Your task to perform on an android device: open a new tab in the chrome app Image 0: 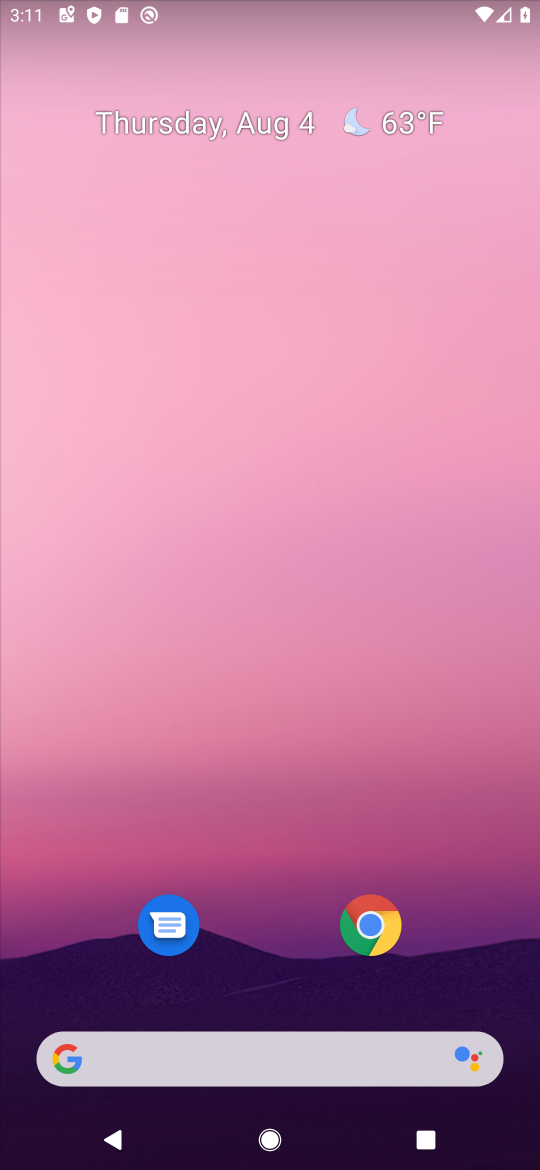
Step 0: click (370, 925)
Your task to perform on an android device: open a new tab in the chrome app Image 1: 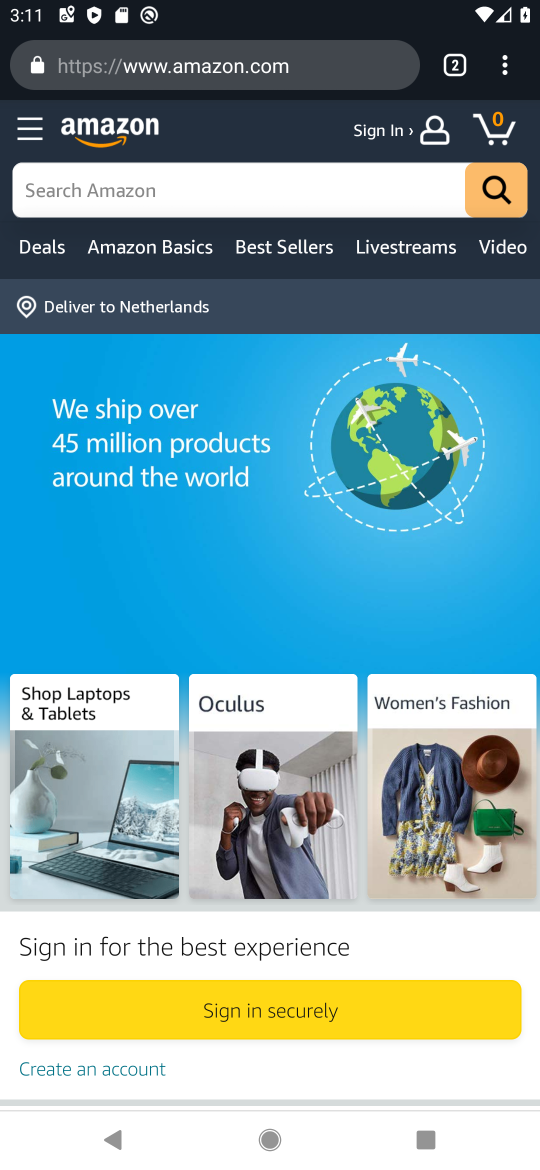
Step 1: click (448, 70)
Your task to perform on an android device: open a new tab in the chrome app Image 2: 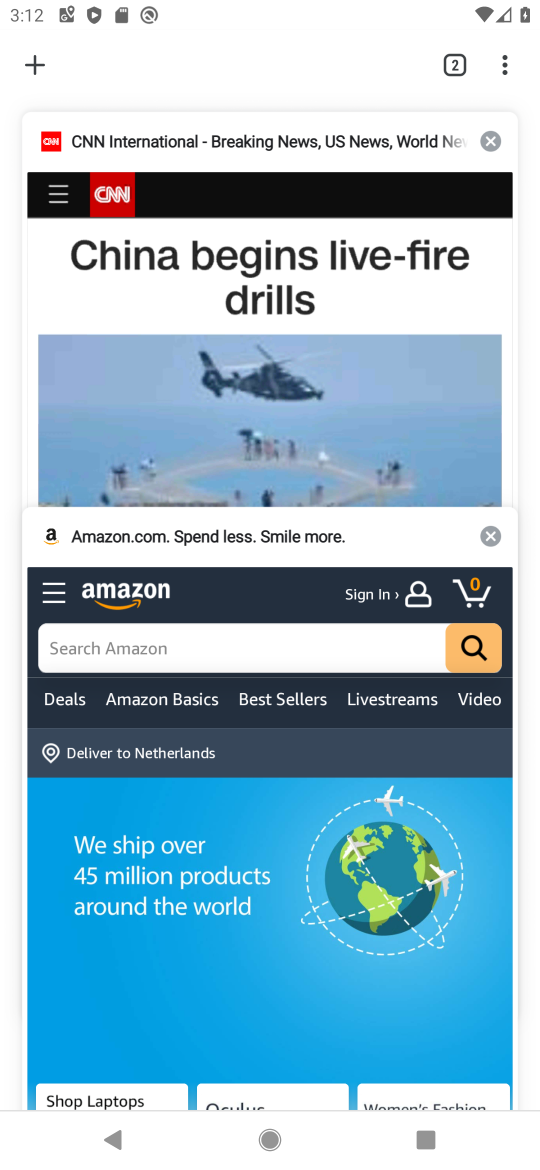
Step 2: click (38, 73)
Your task to perform on an android device: open a new tab in the chrome app Image 3: 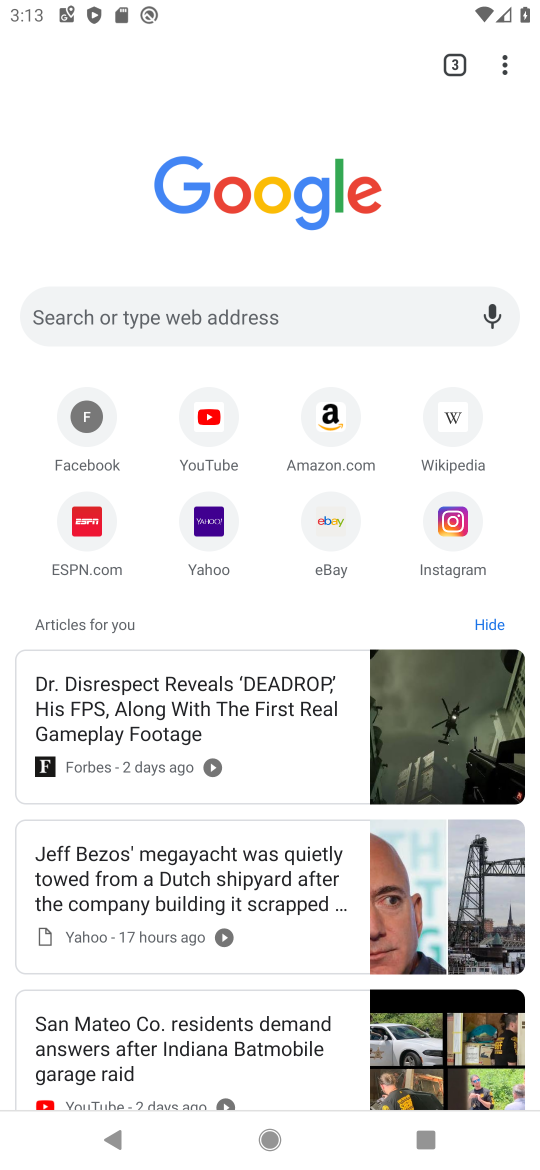
Step 3: task complete